Your task to perform on an android device: Go to ESPN.com Image 0: 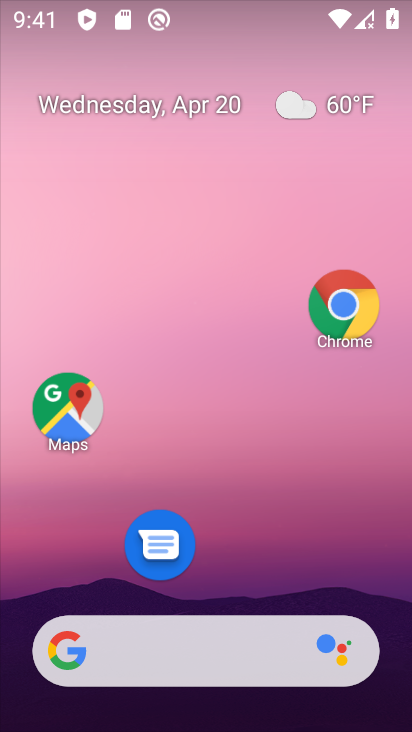
Step 0: drag from (266, 500) to (308, 80)
Your task to perform on an android device: Go to ESPN.com Image 1: 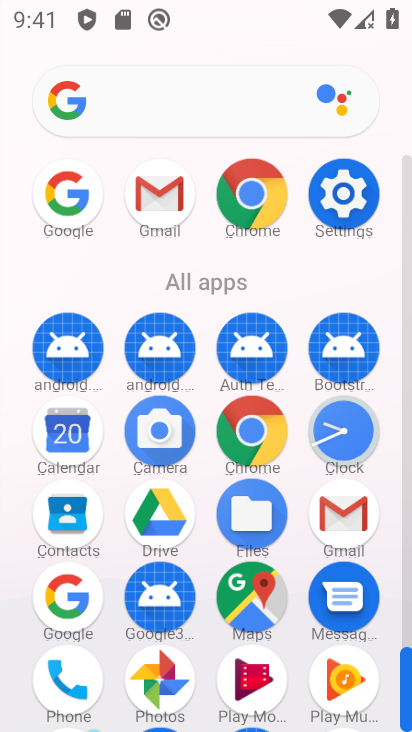
Step 1: click (268, 214)
Your task to perform on an android device: Go to ESPN.com Image 2: 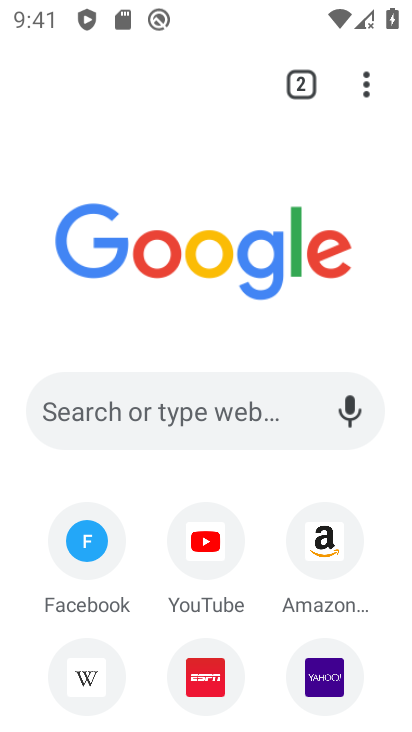
Step 2: drag from (220, 500) to (223, 279)
Your task to perform on an android device: Go to ESPN.com Image 3: 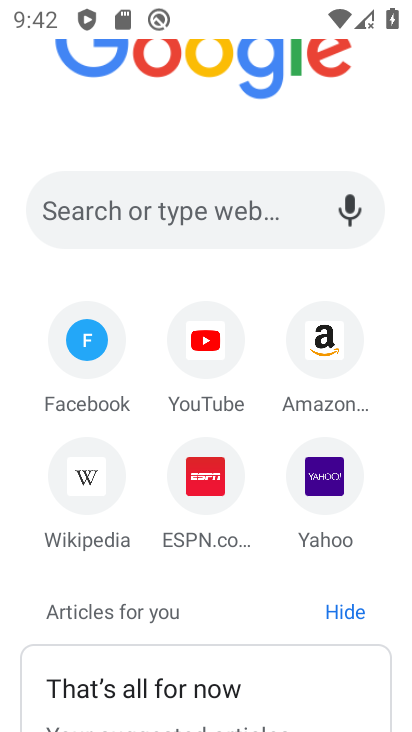
Step 3: click (219, 468)
Your task to perform on an android device: Go to ESPN.com Image 4: 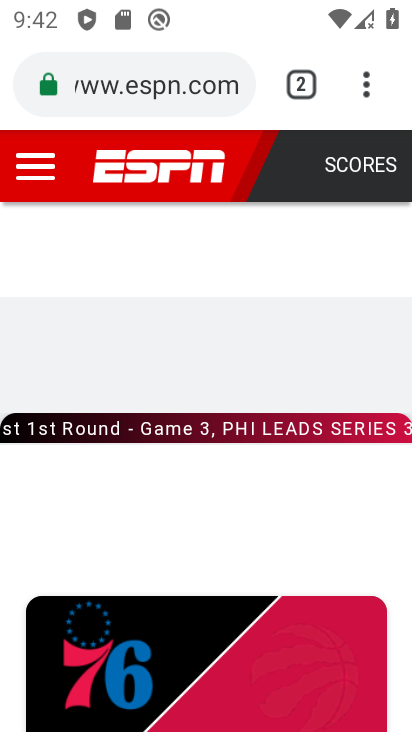
Step 4: task complete